Your task to perform on an android device: Open maps Image 0: 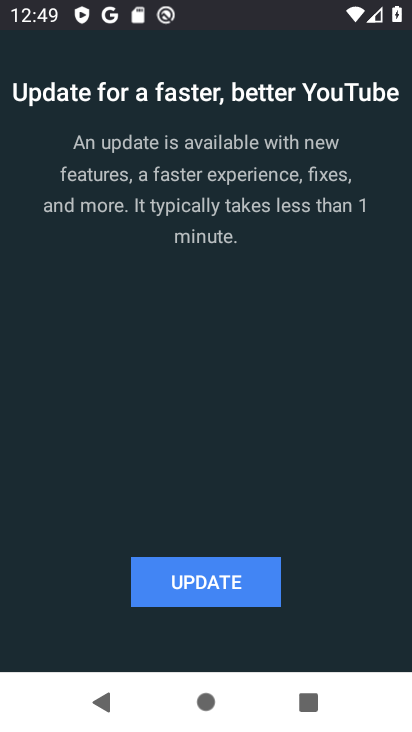
Step 0: press back button
Your task to perform on an android device: Open maps Image 1: 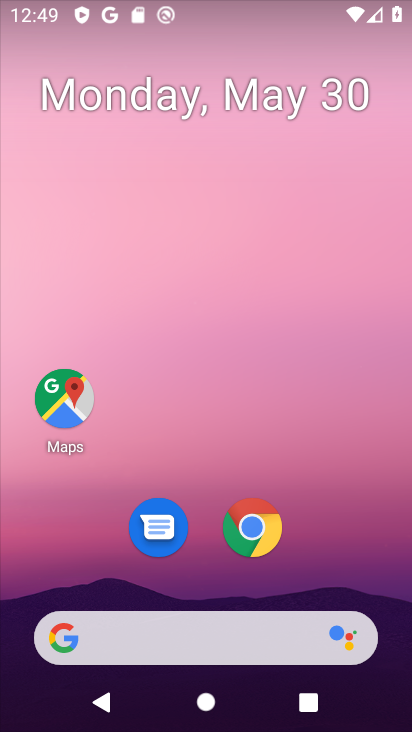
Step 1: click (78, 394)
Your task to perform on an android device: Open maps Image 2: 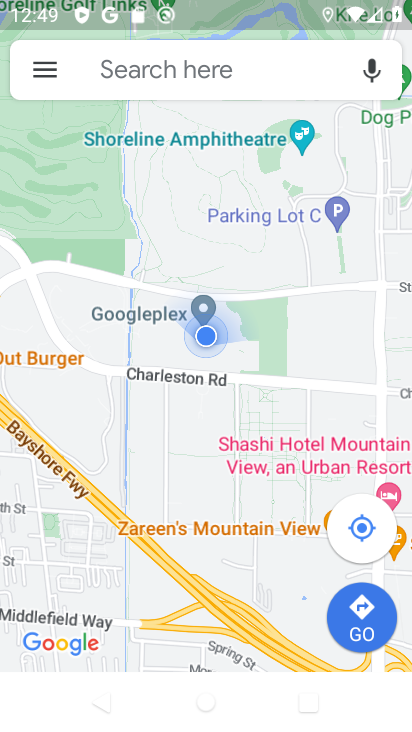
Step 2: task complete